Your task to perform on an android device: Search for flights from London to Paris Image 0: 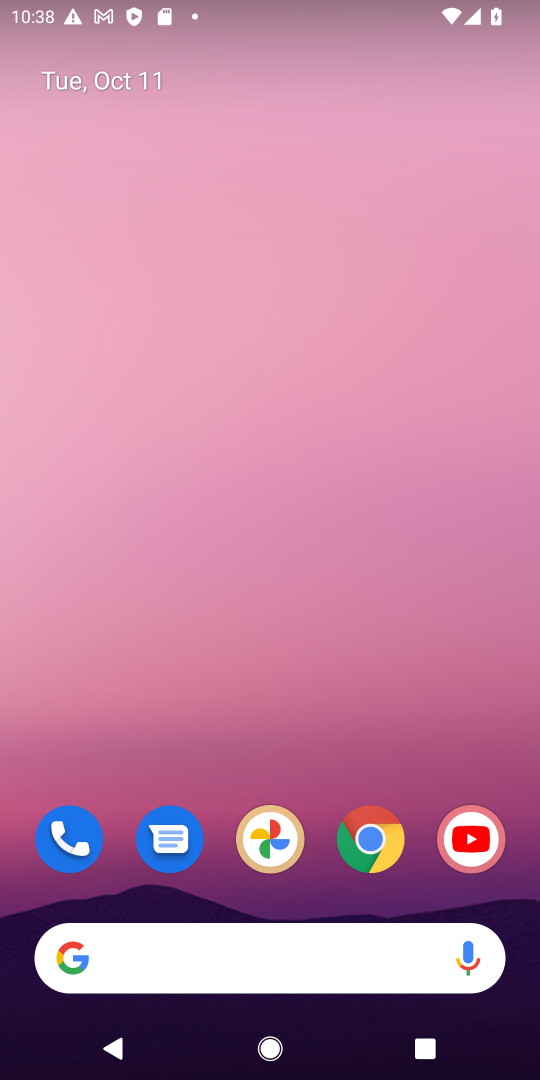
Step 0: drag from (298, 901) to (306, 533)
Your task to perform on an android device: Search for flights from London to Paris Image 1: 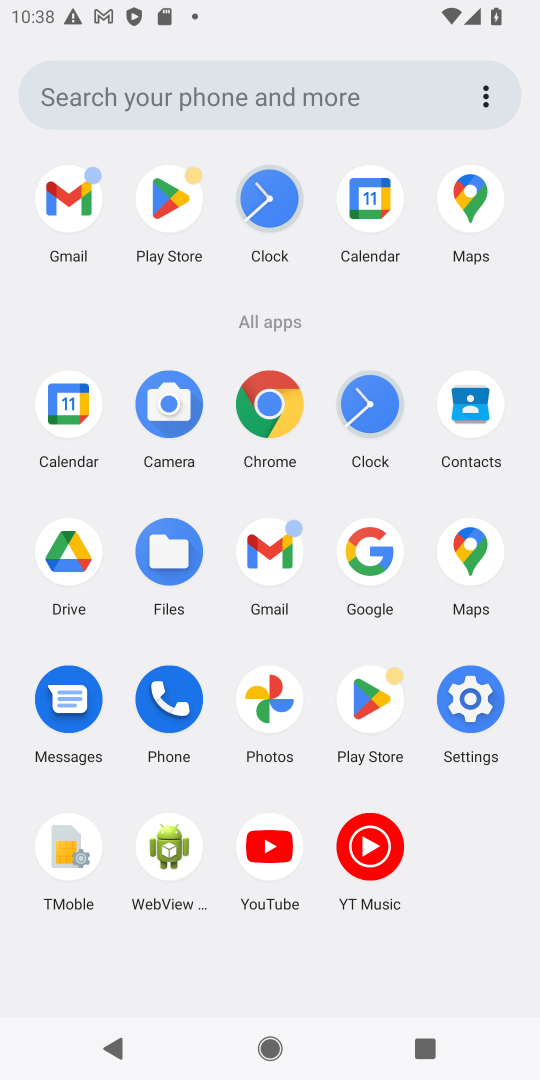
Step 1: click (380, 552)
Your task to perform on an android device: Search for flights from London to Paris Image 2: 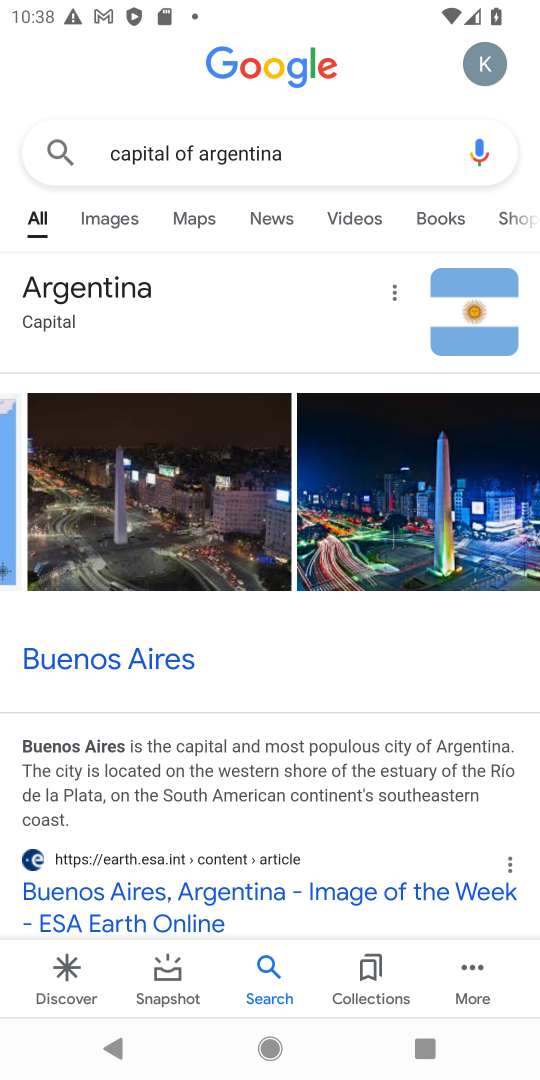
Step 2: click (360, 142)
Your task to perform on an android device: Search for flights from London to Paris Image 3: 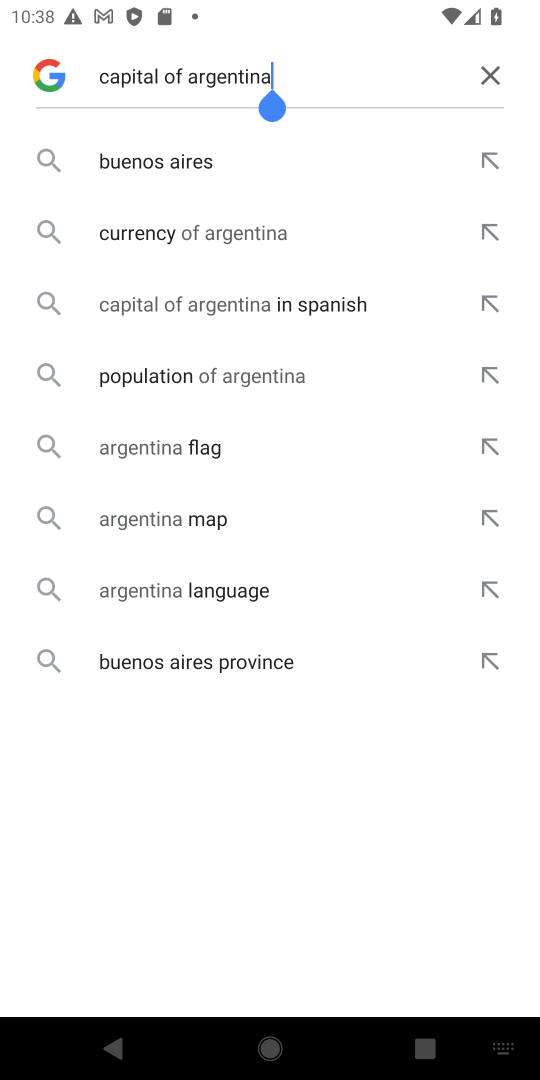
Step 3: click (490, 52)
Your task to perform on an android device: Search for flights from London to Paris Image 4: 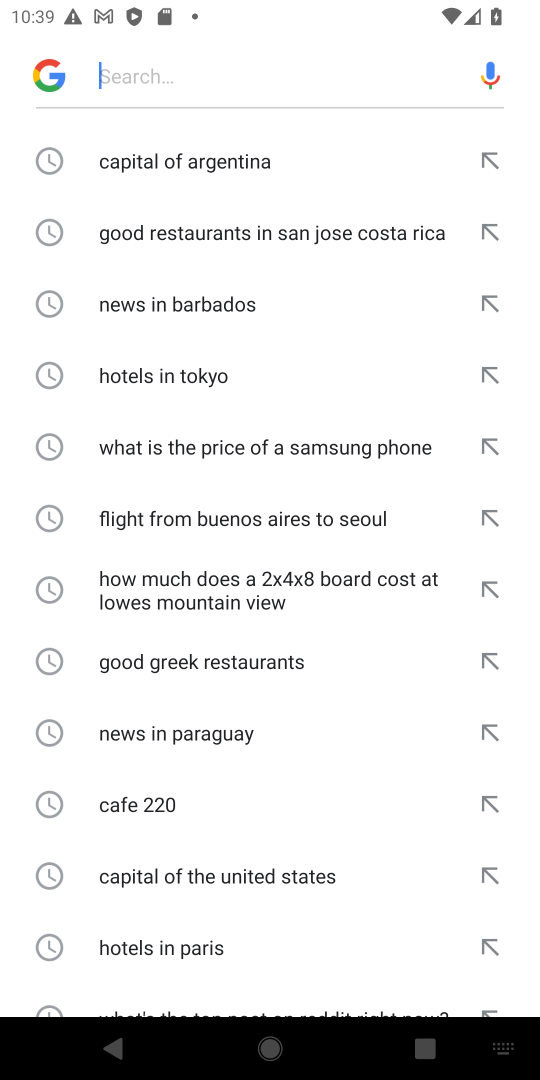
Step 4: type "flights from London to Paris"
Your task to perform on an android device: Search for flights from London to Paris Image 5: 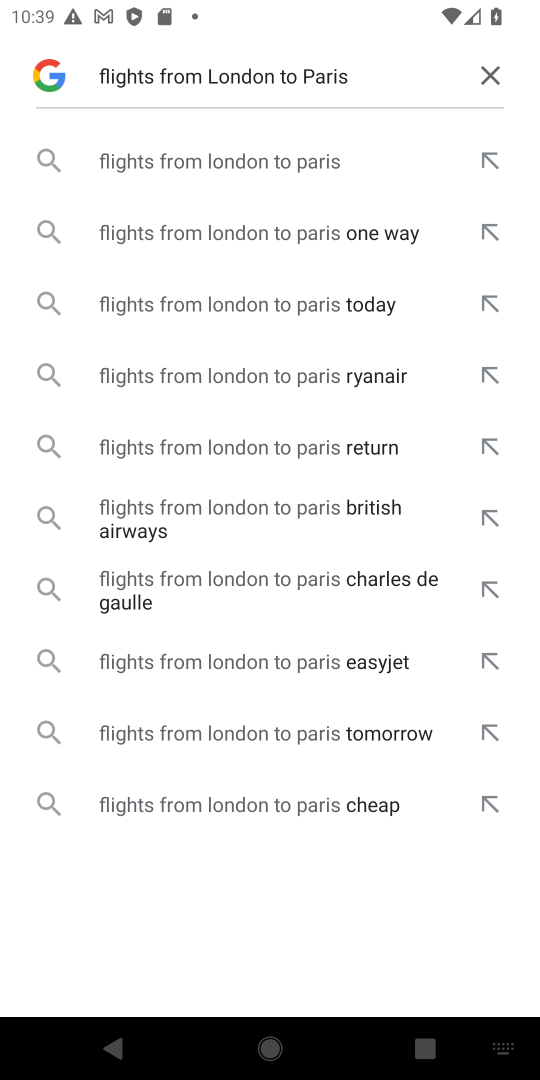
Step 5: click (243, 156)
Your task to perform on an android device: Search for flights from London to Paris Image 6: 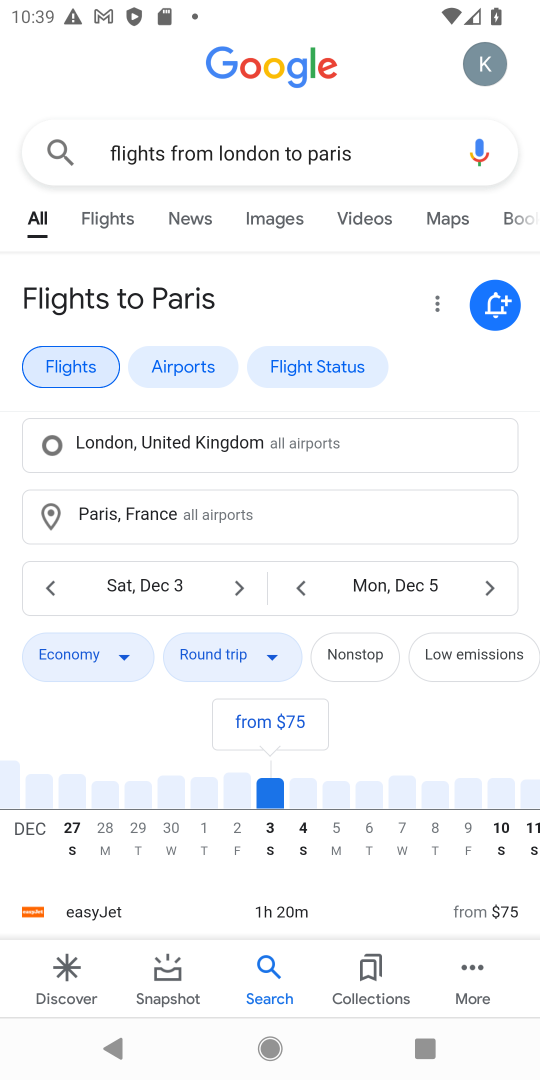
Step 6: task complete